Your task to perform on an android device: Open wifi settings Image 0: 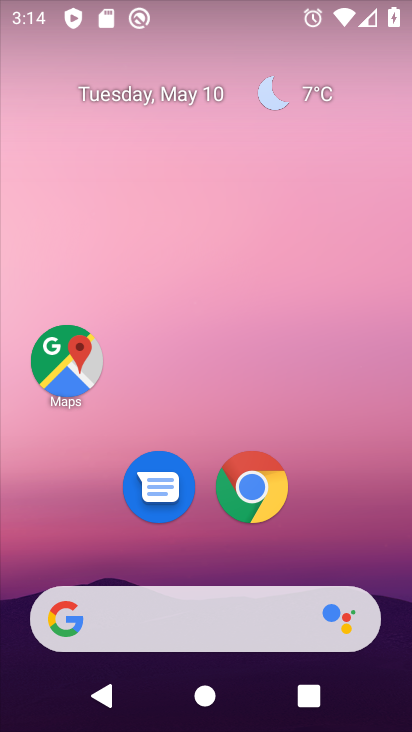
Step 0: drag from (336, 463) to (322, 80)
Your task to perform on an android device: Open wifi settings Image 1: 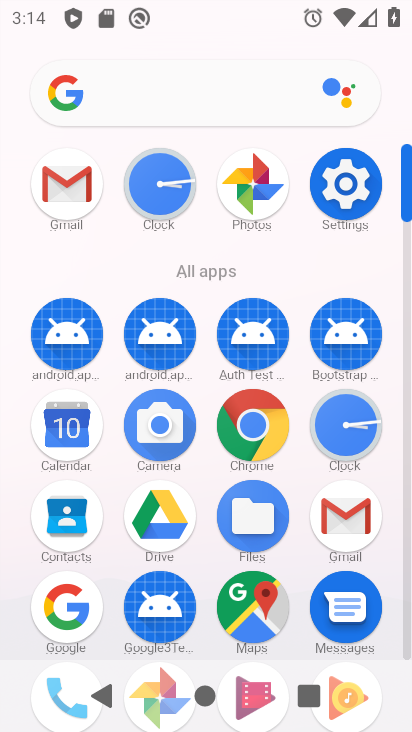
Step 1: click (342, 197)
Your task to perform on an android device: Open wifi settings Image 2: 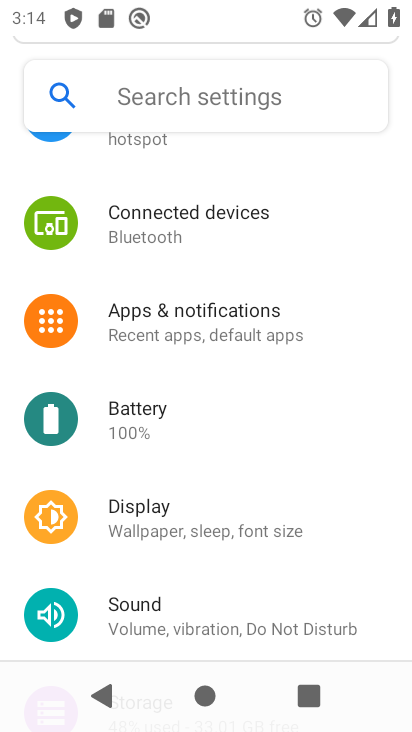
Step 2: drag from (220, 151) to (199, 583)
Your task to perform on an android device: Open wifi settings Image 3: 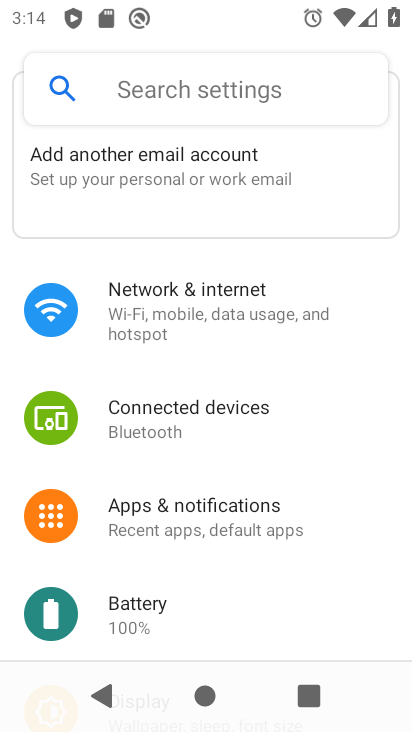
Step 3: click (203, 309)
Your task to perform on an android device: Open wifi settings Image 4: 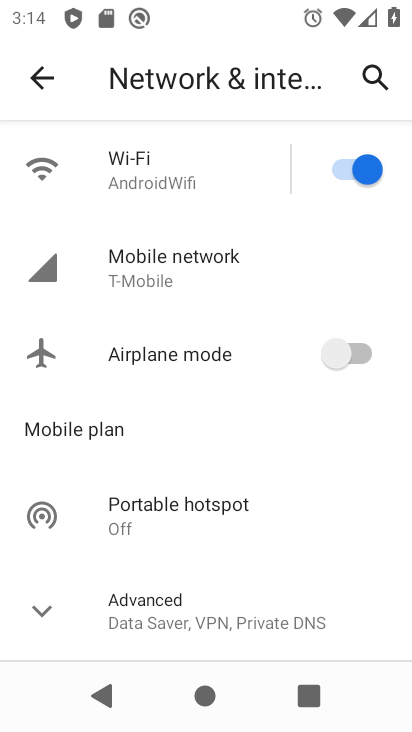
Step 4: click (214, 159)
Your task to perform on an android device: Open wifi settings Image 5: 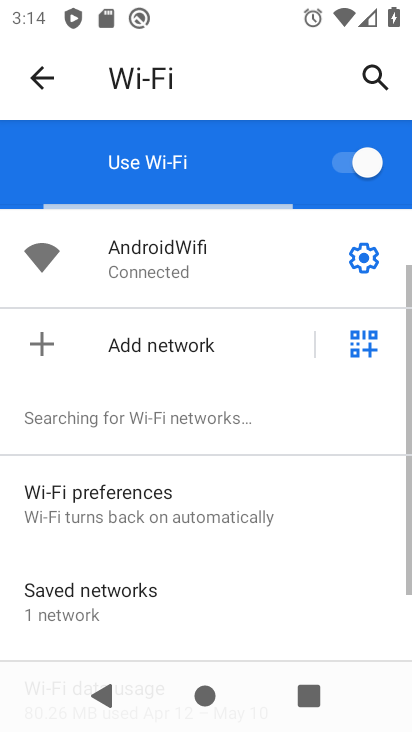
Step 5: click (364, 249)
Your task to perform on an android device: Open wifi settings Image 6: 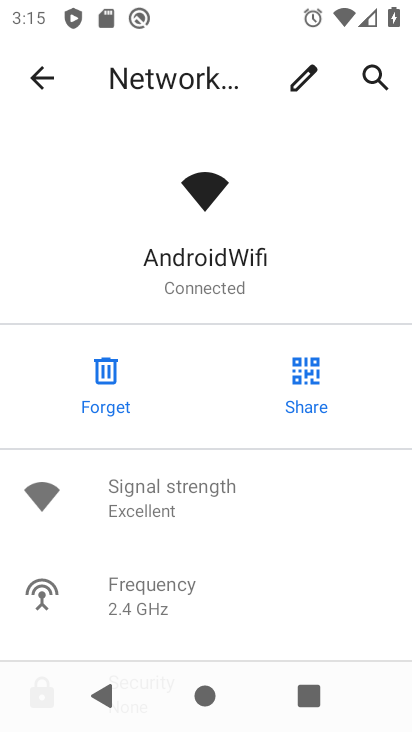
Step 6: task complete